Your task to perform on an android device: Open Google Maps and go to "Timeline" Image 0: 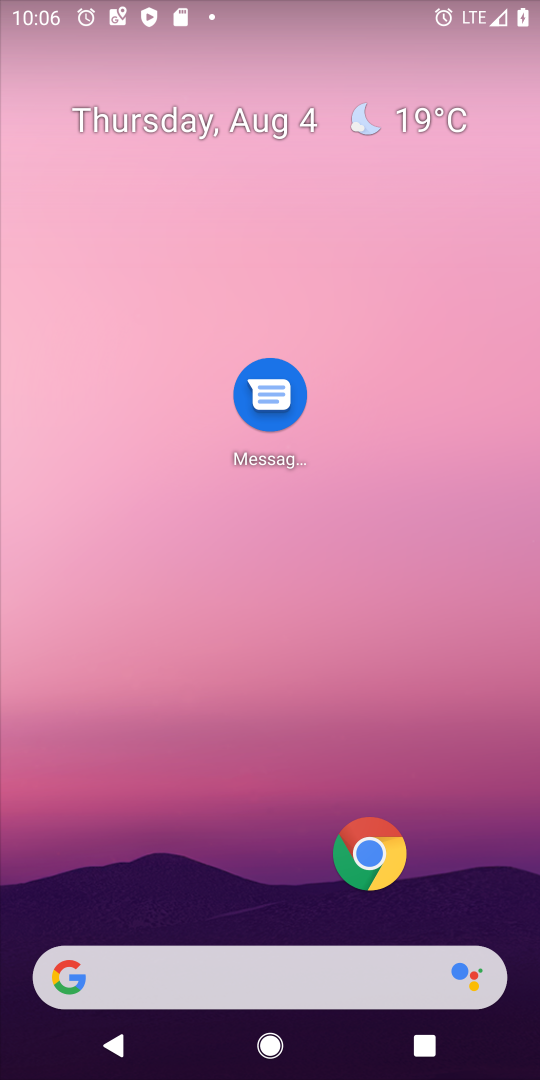
Step 0: drag from (275, 931) to (265, 347)
Your task to perform on an android device: Open Google Maps and go to "Timeline" Image 1: 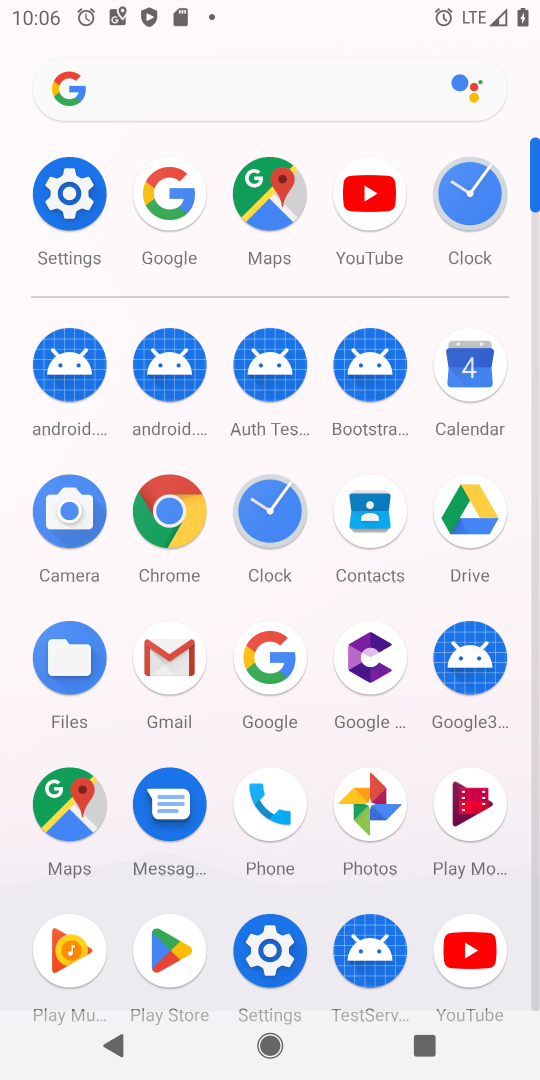
Step 1: click (260, 194)
Your task to perform on an android device: Open Google Maps and go to "Timeline" Image 2: 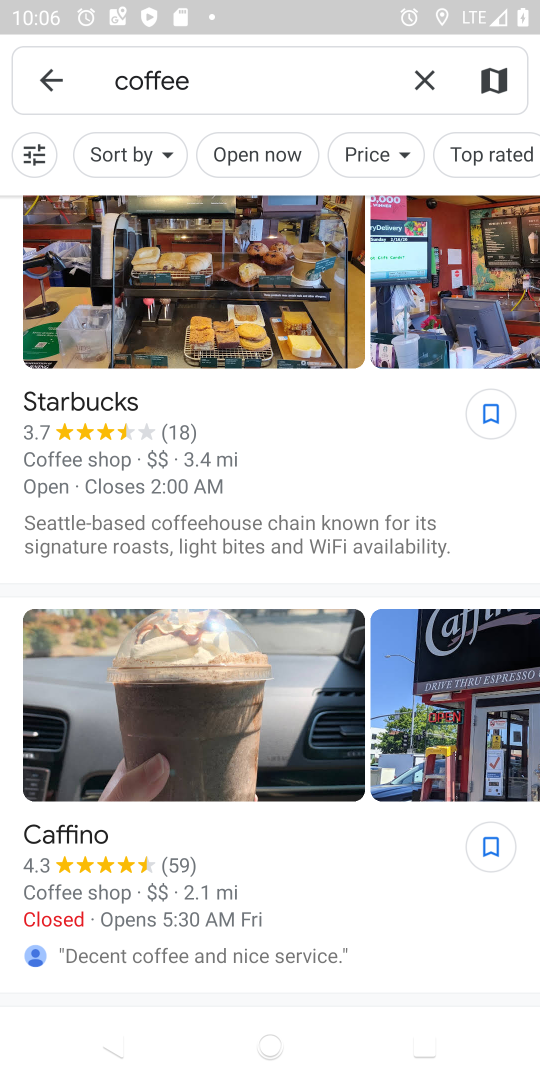
Step 2: click (34, 85)
Your task to perform on an android device: Open Google Maps and go to "Timeline" Image 3: 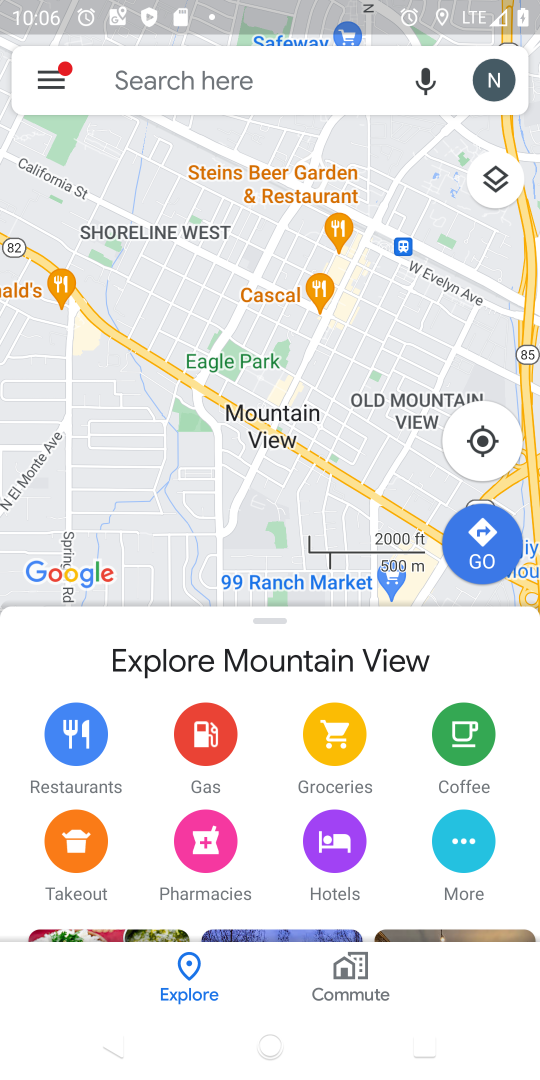
Step 3: click (50, 72)
Your task to perform on an android device: Open Google Maps and go to "Timeline" Image 4: 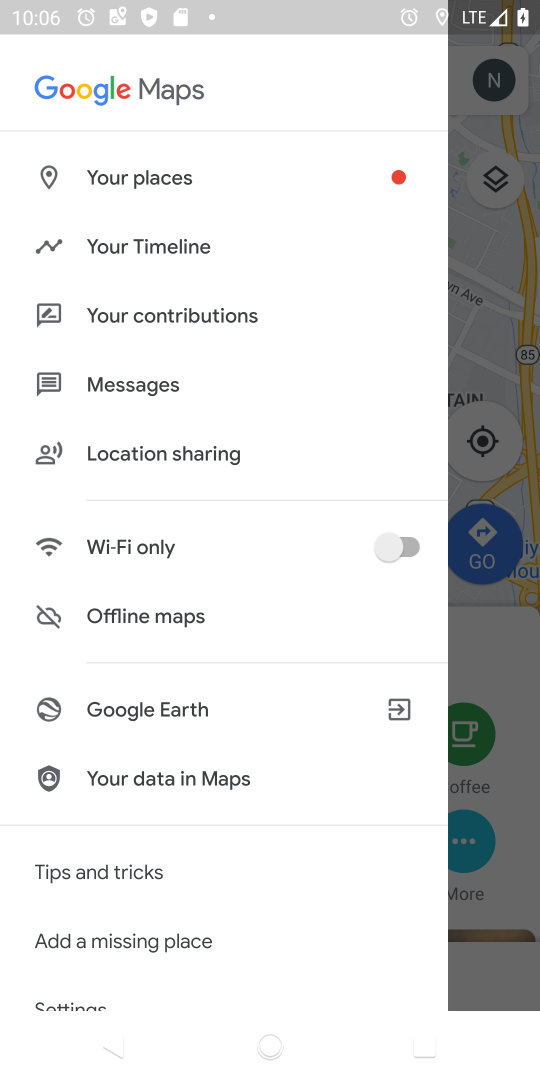
Step 4: click (142, 248)
Your task to perform on an android device: Open Google Maps and go to "Timeline" Image 5: 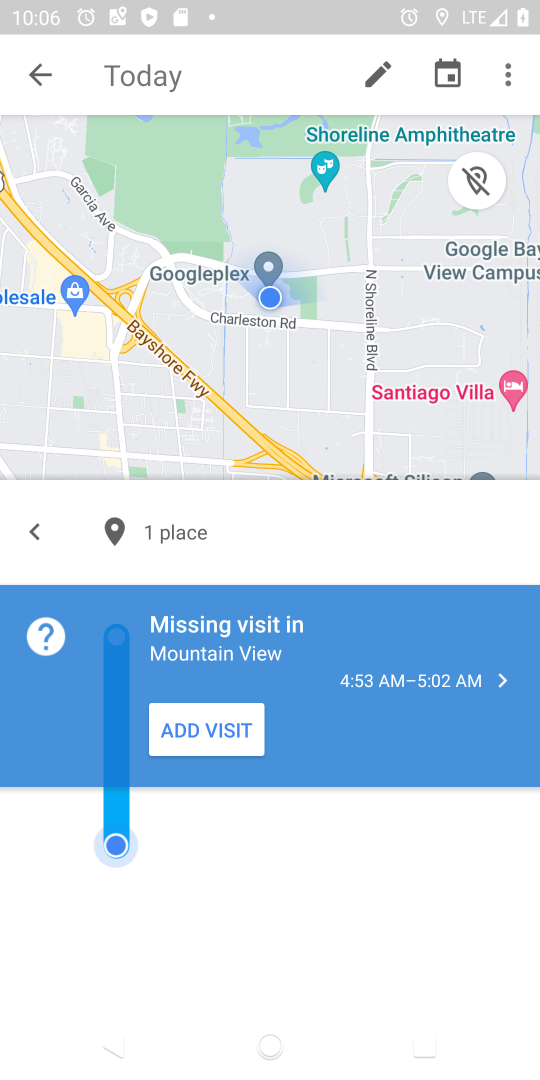
Step 5: task complete